Your task to perform on an android device: star an email in the gmail app Image 0: 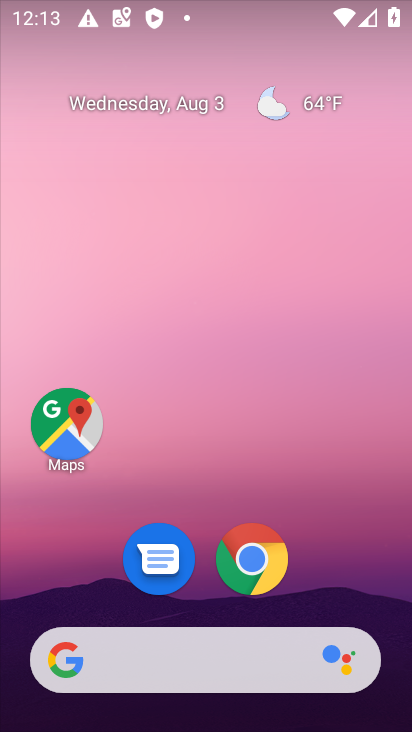
Step 0: drag from (205, 593) to (204, 223)
Your task to perform on an android device: star an email in the gmail app Image 1: 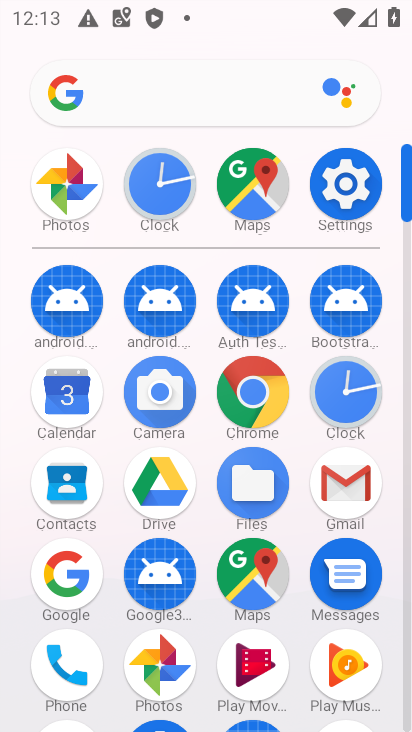
Step 1: click (345, 482)
Your task to perform on an android device: star an email in the gmail app Image 2: 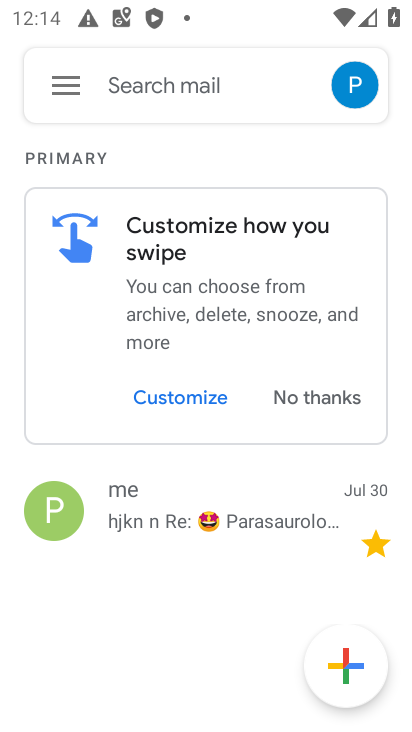
Step 2: task complete